Your task to perform on an android device: Open privacy settings Image 0: 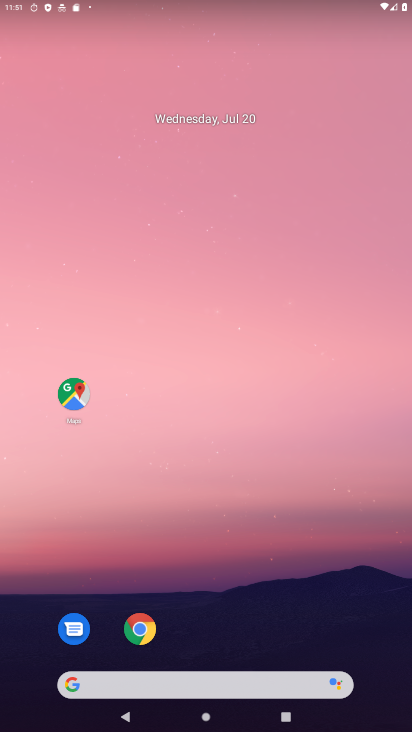
Step 0: drag from (216, 706) to (187, 0)
Your task to perform on an android device: Open privacy settings Image 1: 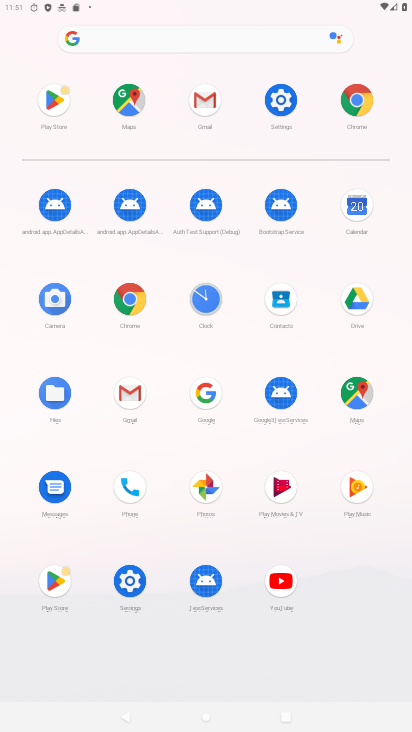
Step 1: click (286, 96)
Your task to perform on an android device: Open privacy settings Image 2: 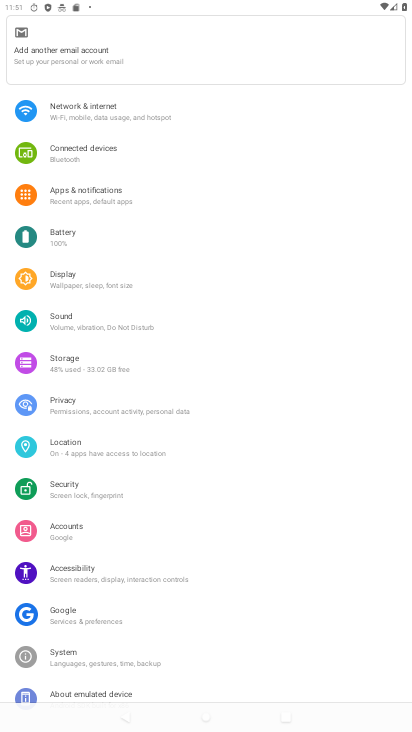
Step 2: click (78, 394)
Your task to perform on an android device: Open privacy settings Image 3: 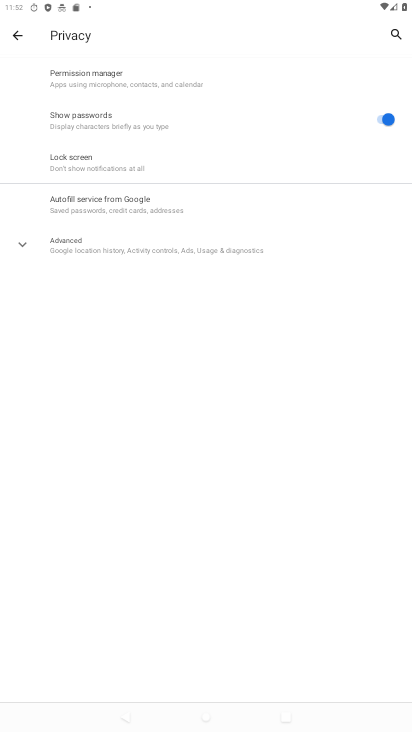
Step 3: task complete